Your task to perform on an android device: Open Google Maps and go to "Timeline" Image 0: 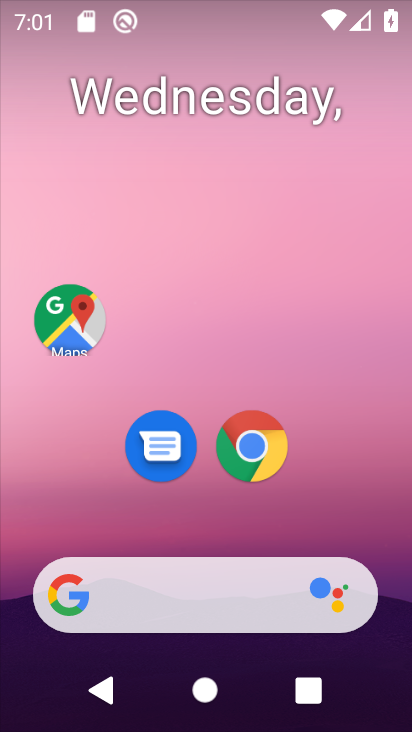
Step 0: drag from (310, 634) to (293, 127)
Your task to perform on an android device: Open Google Maps and go to "Timeline" Image 1: 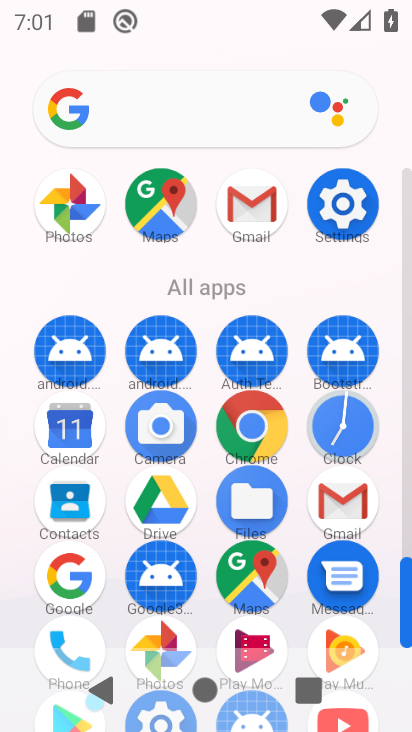
Step 1: click (260, 580)
Your task to perform on an android device: Open Google Maps and go to "Timeline" Image 2: 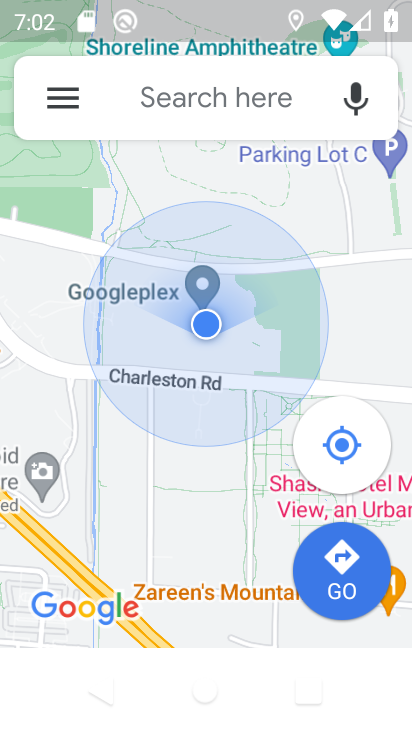
Step 2: click (59, 86)
Your task to perform on an android device: Open Google Maps and go to "Timeline" Image 3: 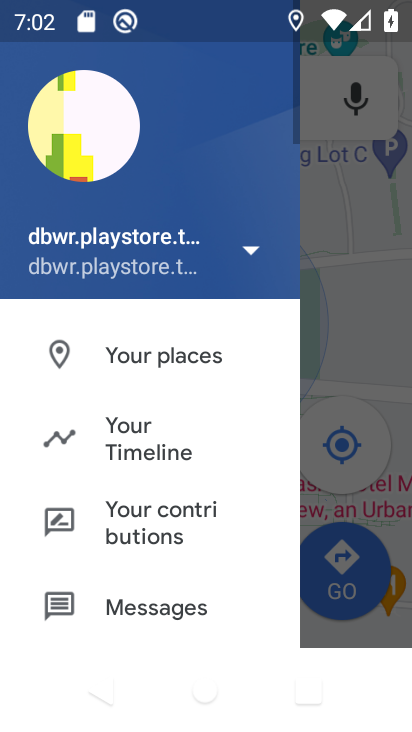
Step 3: click (191, 436)
Your task to perform on an android device: Open Google Maps and go to "Timeline" Image 4: 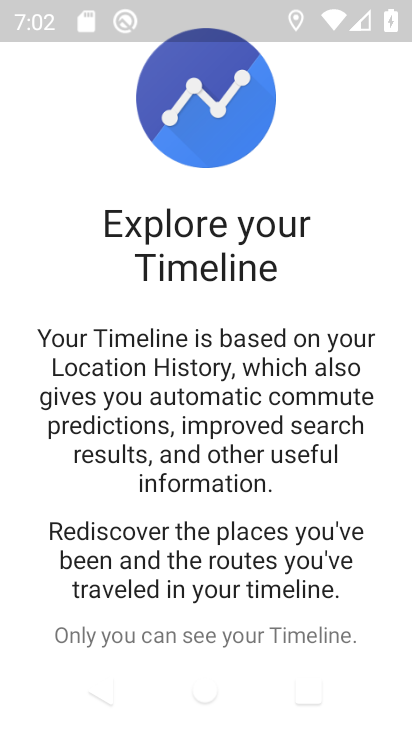
Step 4: drag from (279, 615) to (336, 294)
Your task to perform on an android device: Open Google Maps and go to "Timeline" Image 5: 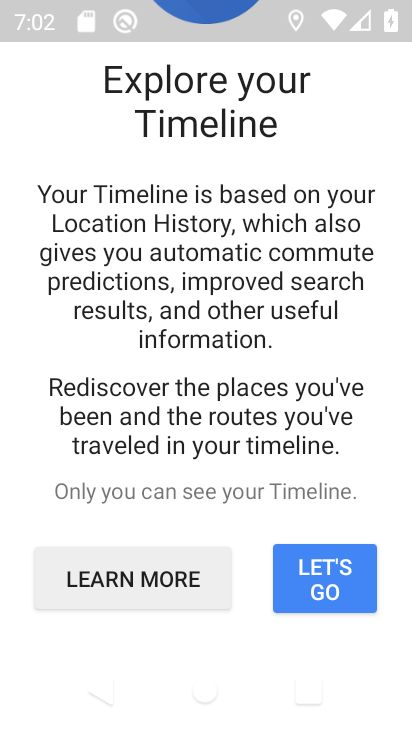
Step 5: click (320, 571)
Your task to perform on an android device: Open Google Maps and go to "Timeline" Image 6: 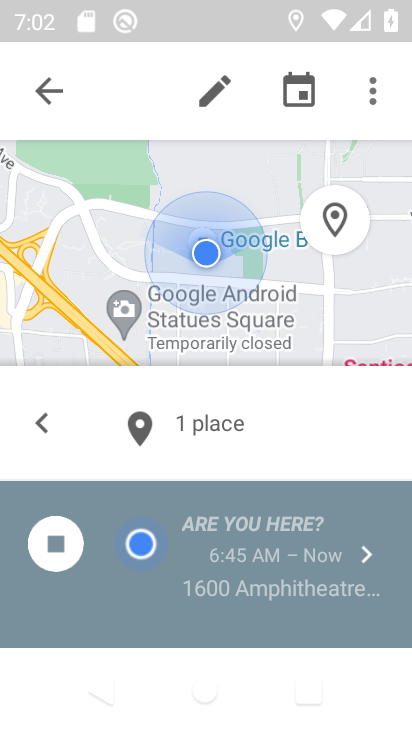
Step 6: task complete